Your task to perform on an android device: Turn off the flashlight Image 0: 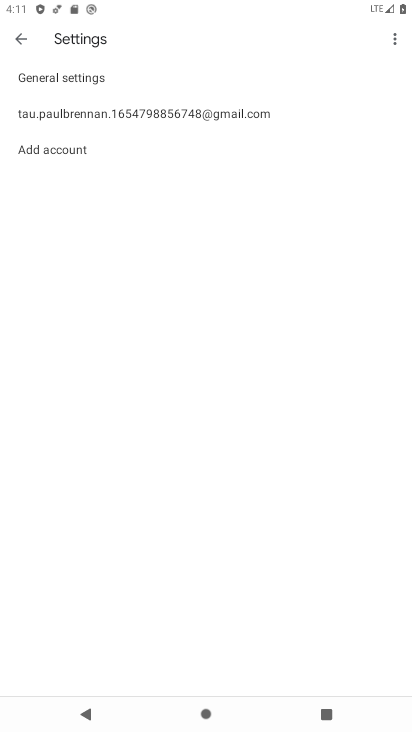
Step 0: press home button
Your task to perform on an android device: Turn off the flashlight Image 1: 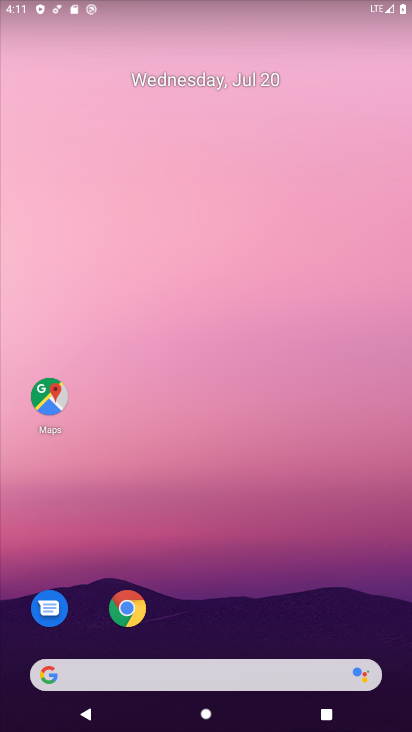
Step 1: task complete